Your task to perform on an android device: read, delete, or share a saved page in the chrome app Image 0: 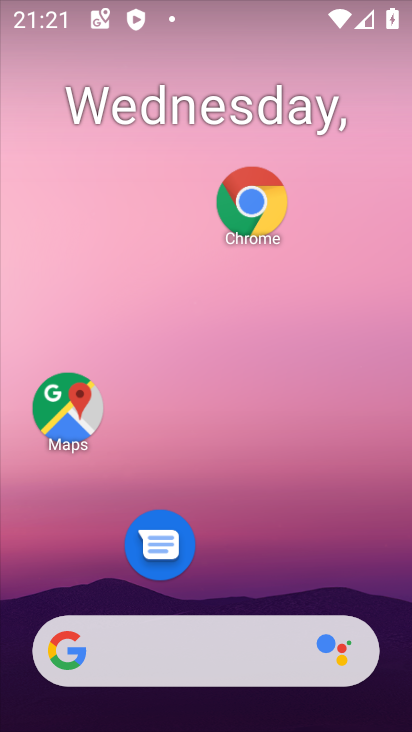
Step 0: click (255, 210)
Your task to perform on an android device: read, delete, or share a saved page in the chrome app Image 1: 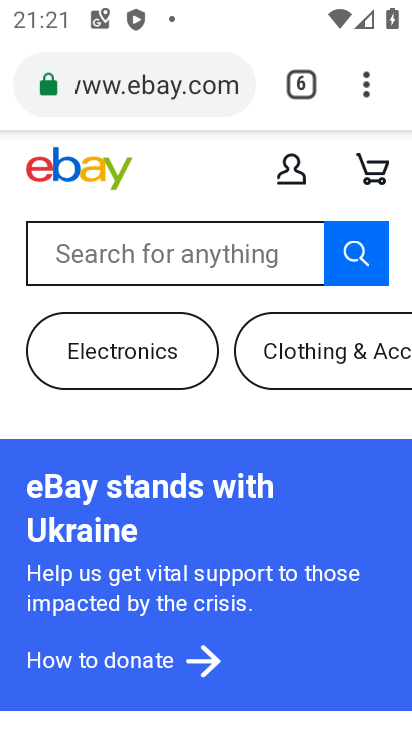
Step 1: click (370, 88)
Your task to perform on an android device: read, delete, or share a saved page in the chrome app Image 2: 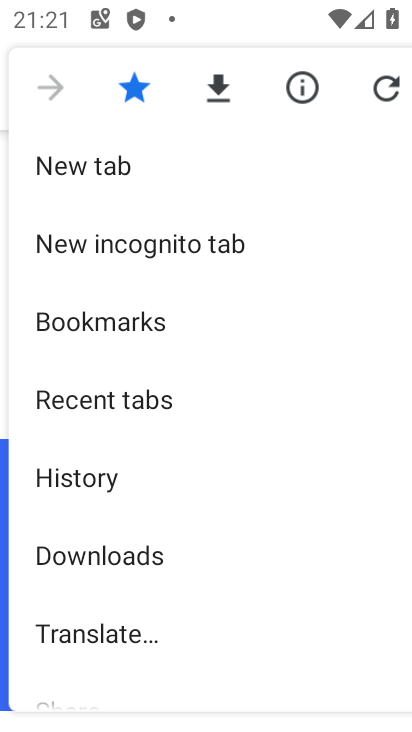
Step 2: click (79, 561)
Your task to perform on an android device: read, delete, or share a saved page in the chrome app Image 3: 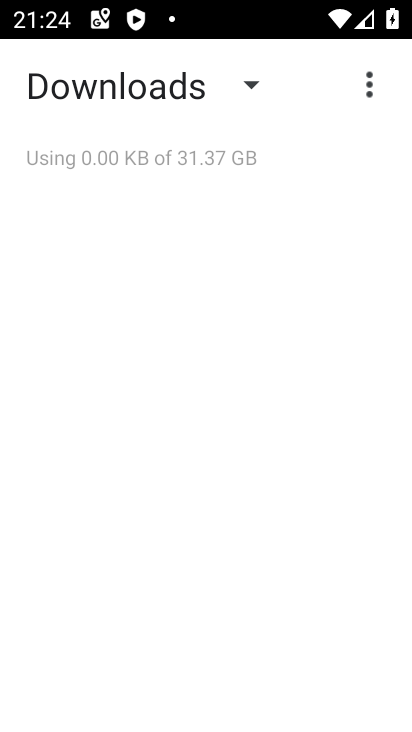
Step 3: task complete